Your task to perform on an android device: turn off wifi Image 0: 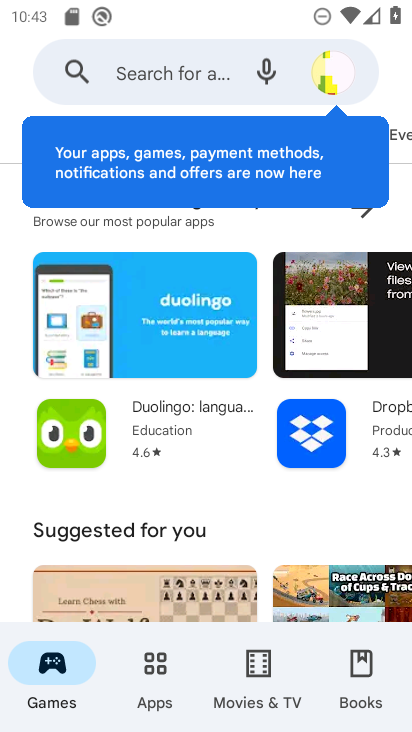
Step 0: press home button
Your task to perform on an android device: turn off wifi Image 1: 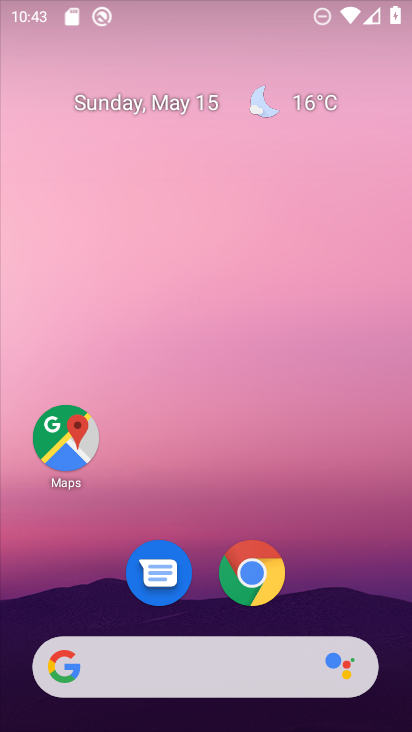
Step 1: drag from (198, 4) to (179, 584)
Your task to perform on an android device: turn off wifi Image 2: 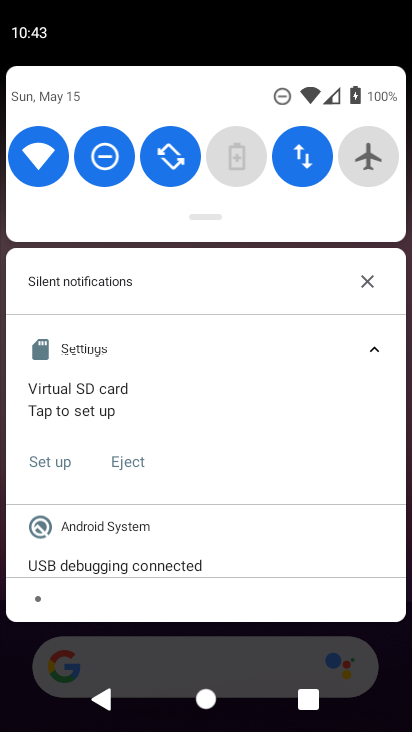
Step 2: click (25, 152)
Your task to perform on an android device: turn off wifi Image 3: 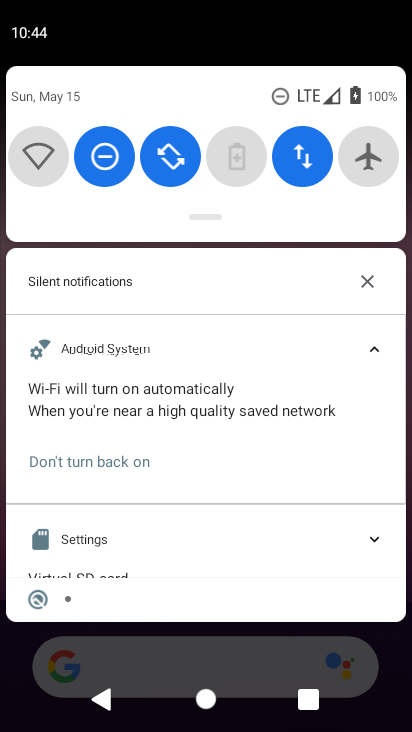
Step 3: task complete